Your task to perform on an android device: open device folders in google photos Image 0: 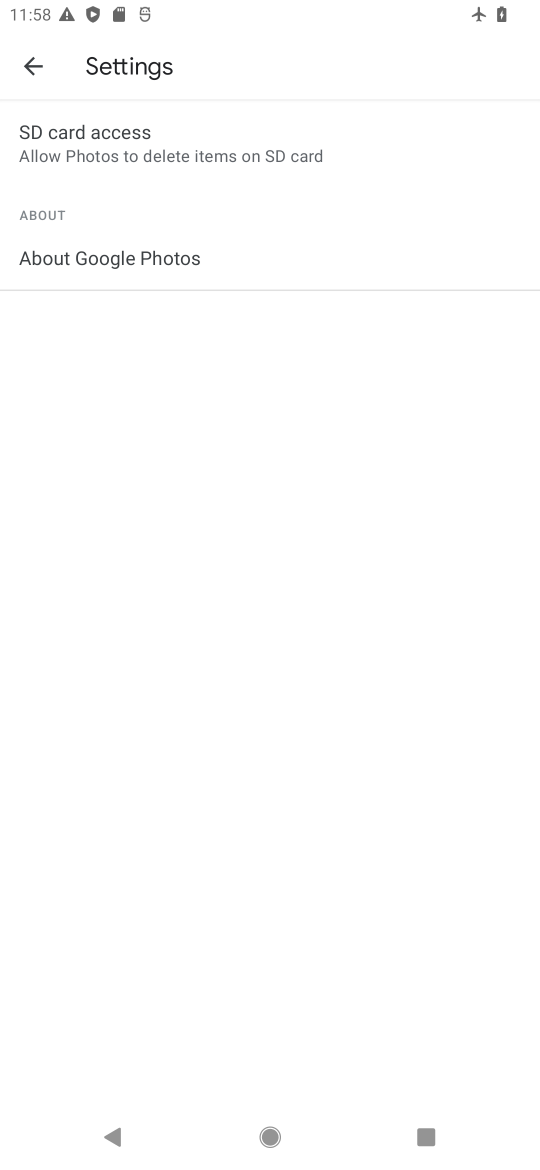
Step 0: press home button
Your task to perform on an android device: open device folders in google photos Image 1: 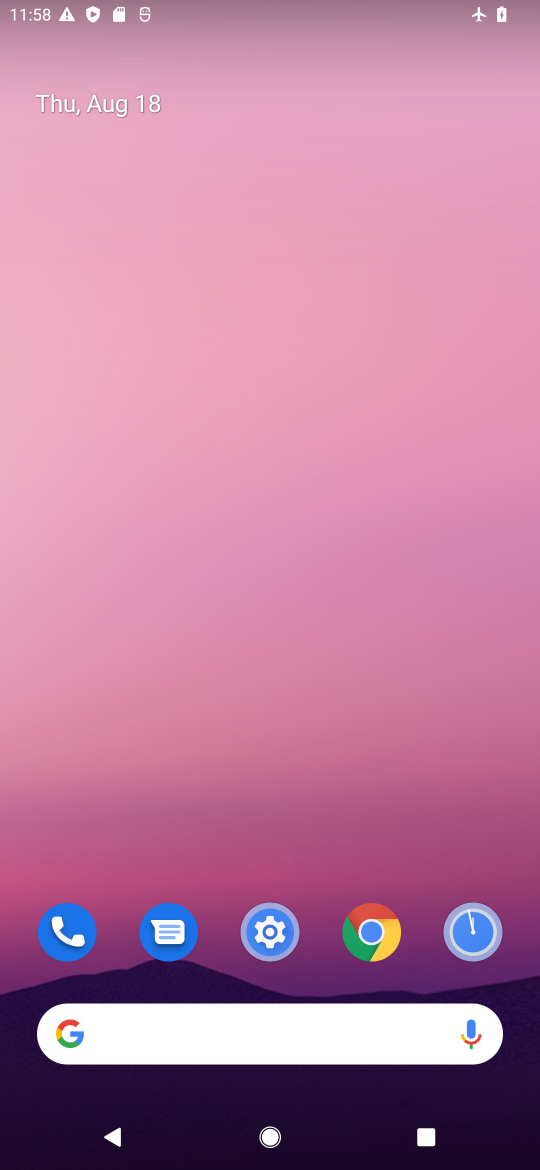
Step 1: drag from (322, 968) to (195, 136)
Your task to perform on an android device: open device folders in google photos Image 2: 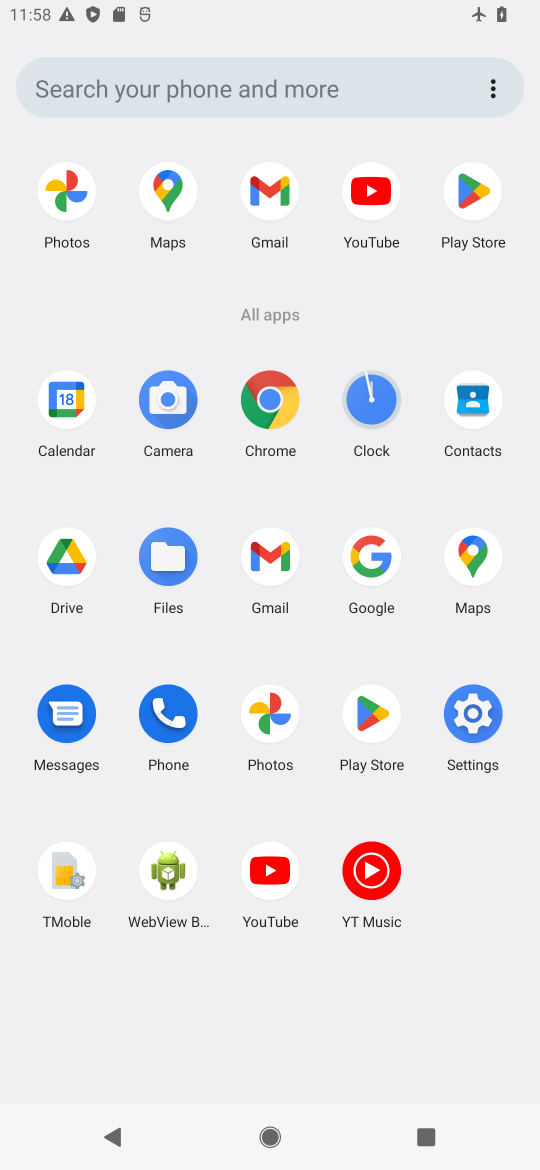
Step 2: click (72, 184)
Your task to perform on an android device: open device folders in google photos Image 3: 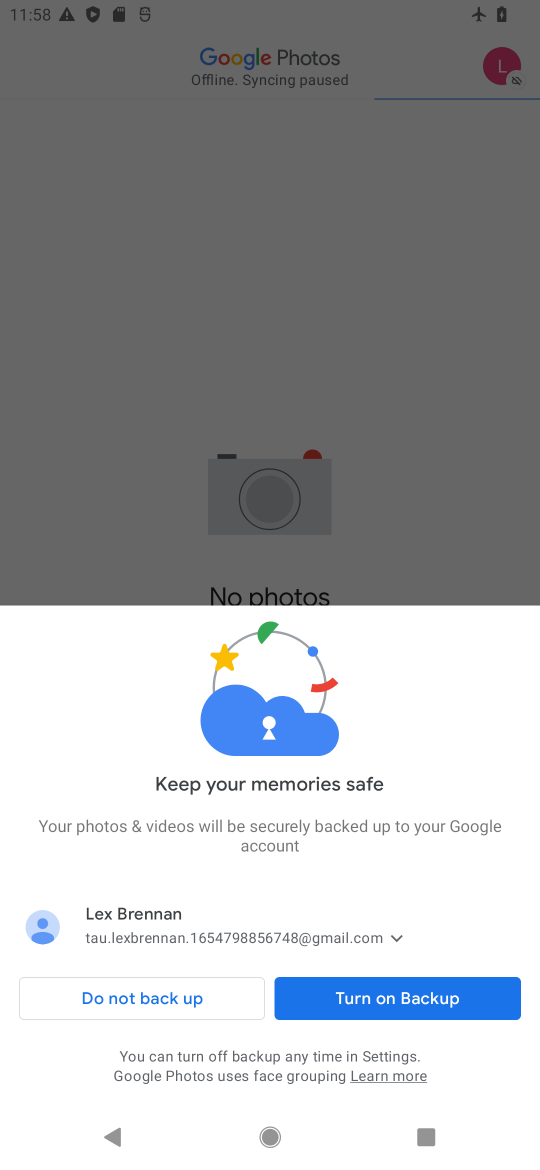
Step 3: click (175, 993)
Your task to perform on an android device: open device folders in google photos Image 4: 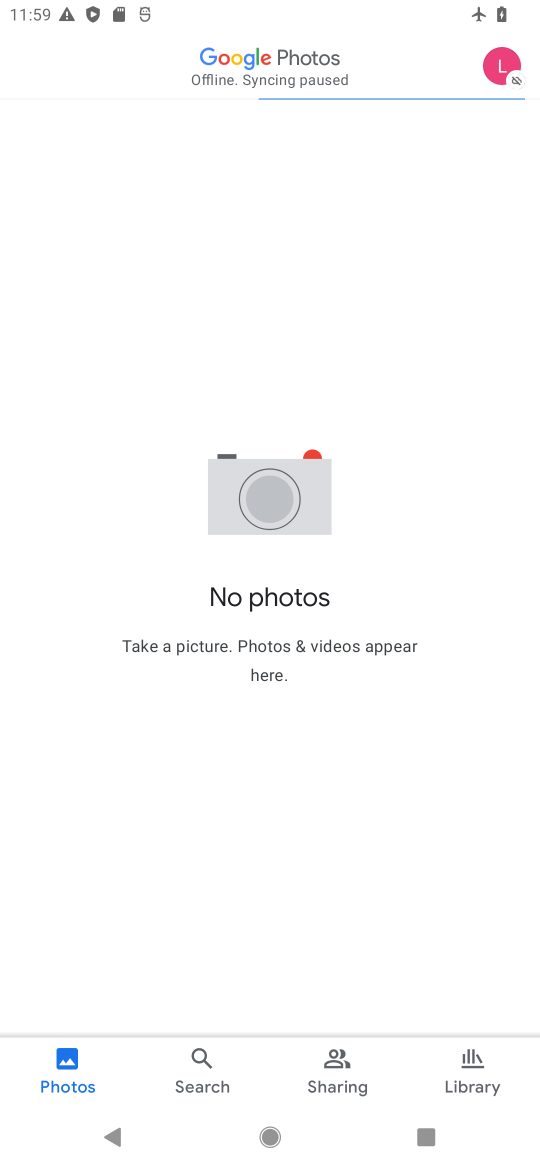
Step 4: click (199, 1058)
Your task to perform on an android device: open device folders in google photos Image 5: 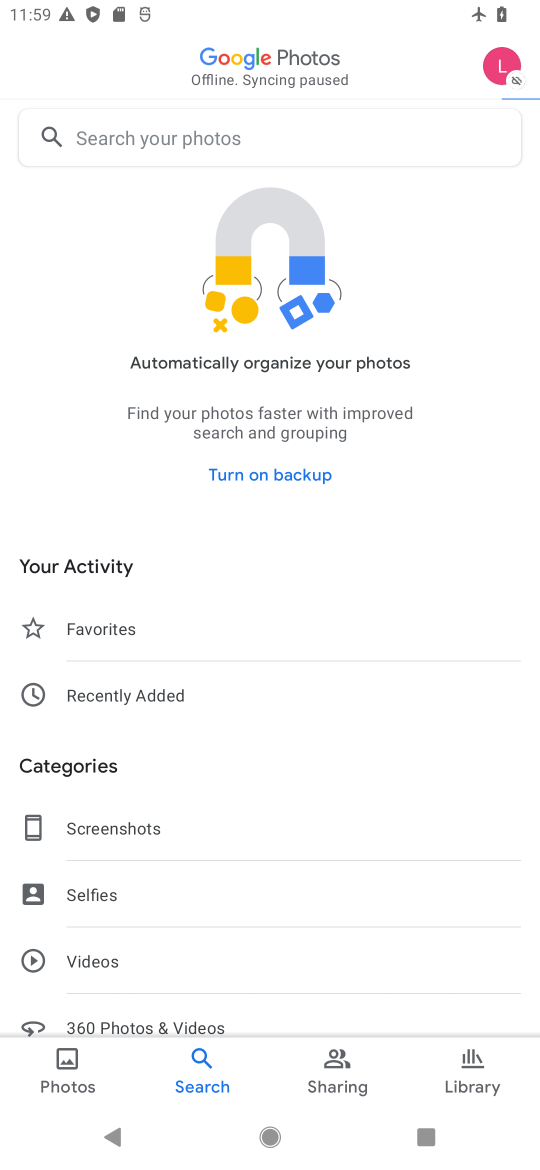
Step 5: click (146, 126)
Your task to perform on an android device: open device folders in google photos Image 6: 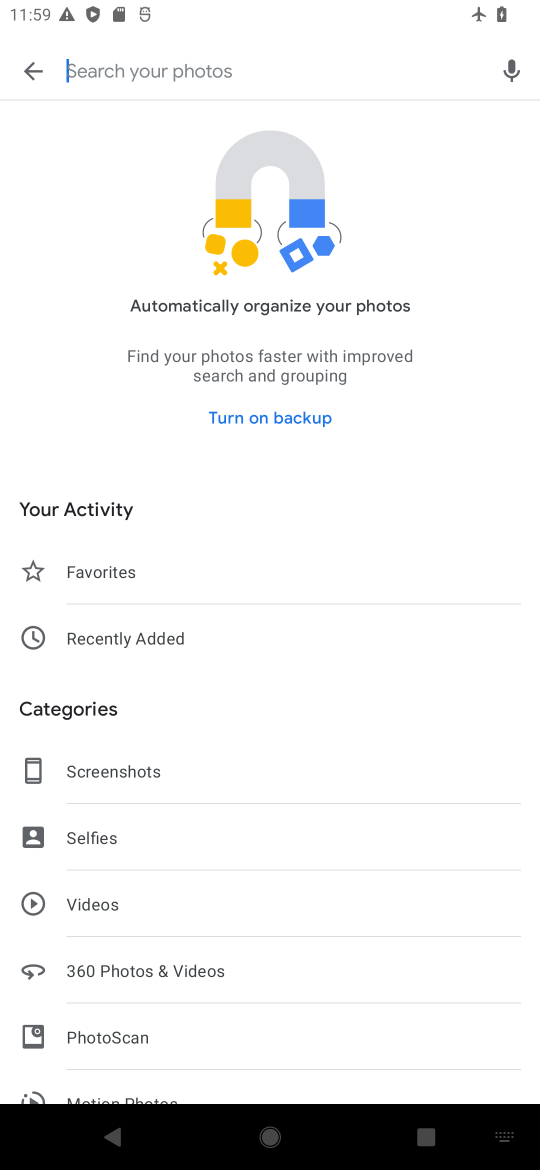
Step 6: type "device"
Your task to perform on an android device: open device folders in google photos Image 7: 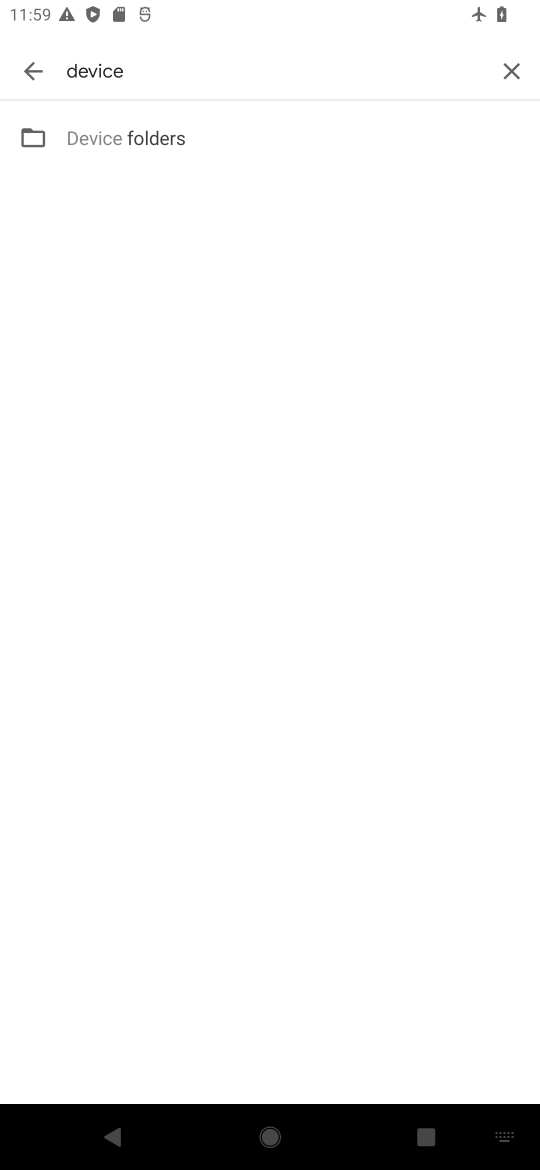
Step 7: click (112, 133)
Your task to perform on an android device: open device folders in google photos Image 8: 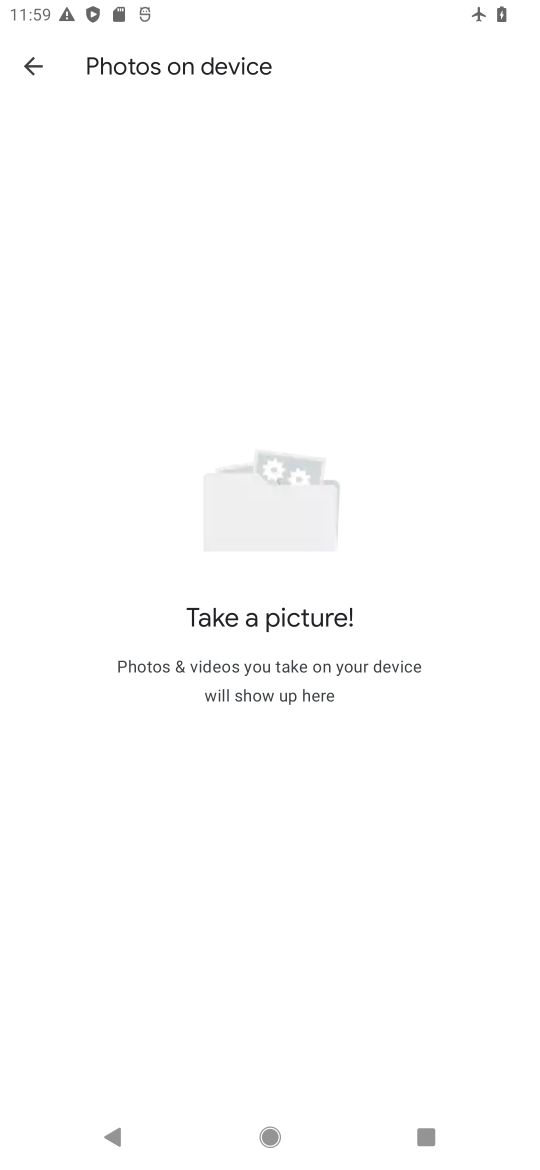
Step 8: task complete